Your task to perform on an android device: toggle improve location accuracy Image 0: 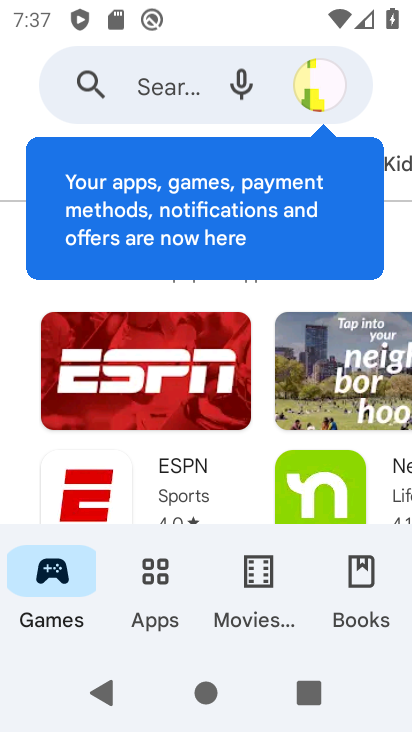
Step 0: press back button
Your task to perform on an android device: toggle improve location accuracy Image 1: 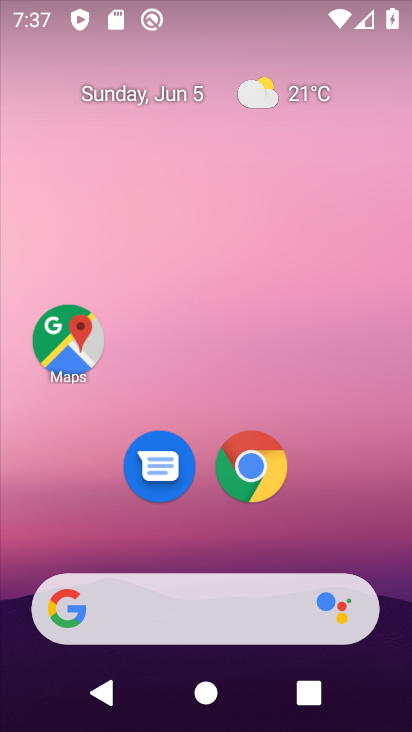
Step 1: drag from (211, 528) to (295, 74)
Your task to perform on an android device: toggle improve location accuracy Image 2: 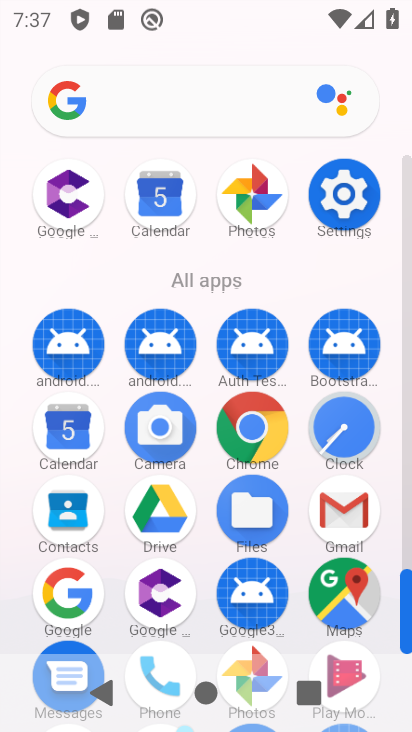
Step 2: click (347, 171)
Your task to perform on an android device: toggle improve location accuracy Image 3: 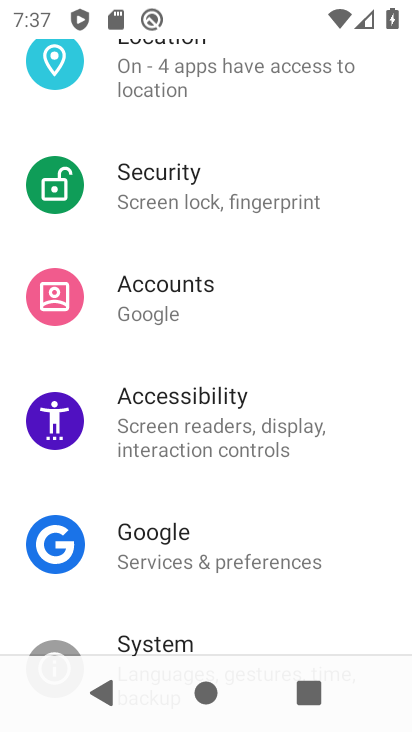
Step 3: click (191, 57)
Your task to perform on an android device: toggle improve location accuracy Image 4: 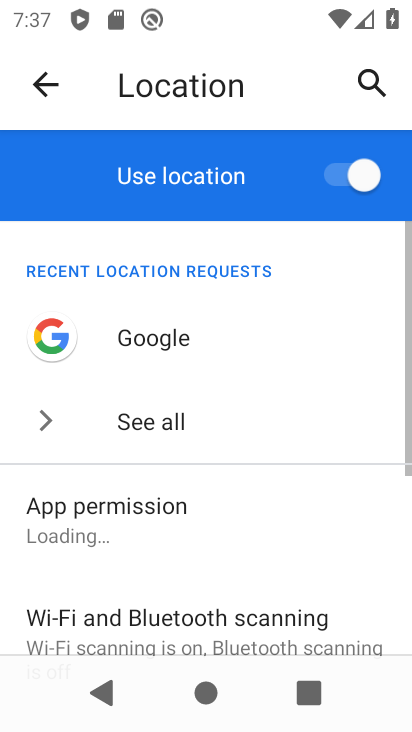
Step 4: drag from (128, 592) to (205, 109)
Your task to perform on an android device: toggle improve location accuracy Image 5: 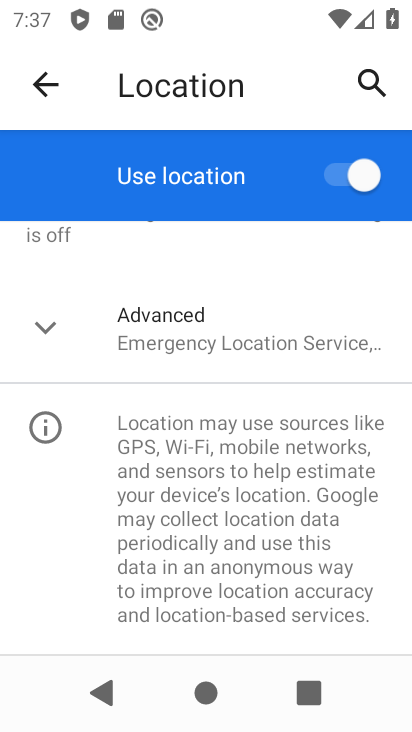
Step 5: drag from (189, 581) to (195, 705)
Your task to perform on an android device: toggle improve location accuracy Image 6: 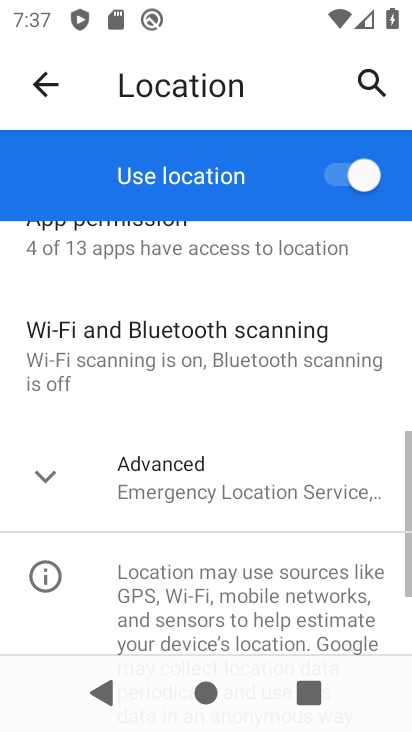
Step 6: click (145, 464)
Your task to perform on an android device: toggle improve location accuracy Image 7: 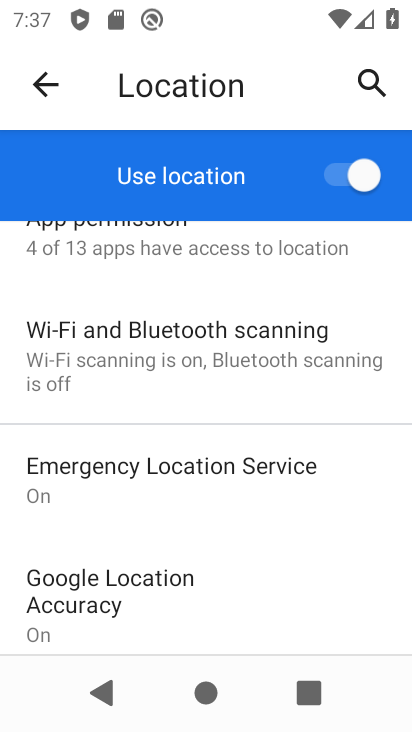
Step 7: click (102, 595)
Your task to perform on an android device: toggle improve location accuracy Image 8: 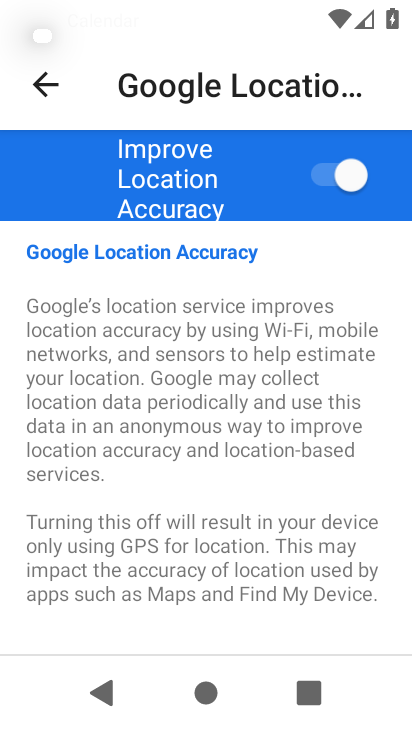
Step 8: click (336, 162)
Your task to perform on an android device: toggle improve location accuracy Image 9: 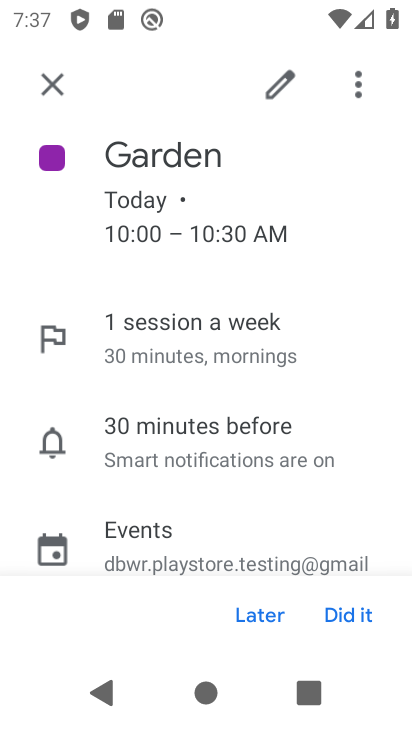
Step 9: click (51, 75)
Your task to perform on an android device: toggle improve location accuracy Image 10: 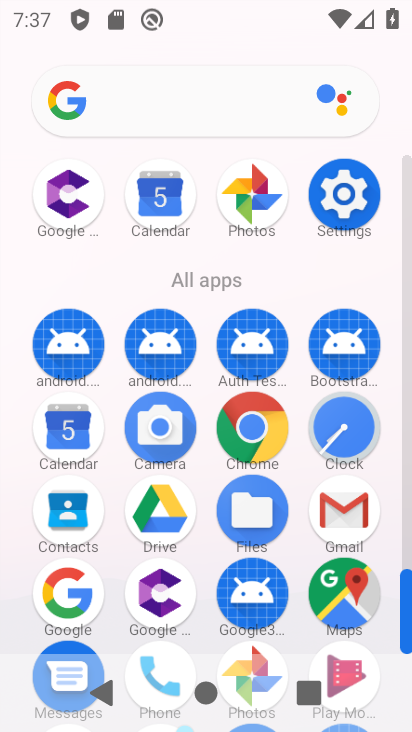
Step 10: click (364, 185)
Your task to perform on an android device: toggle improve location accuracy Image 11: 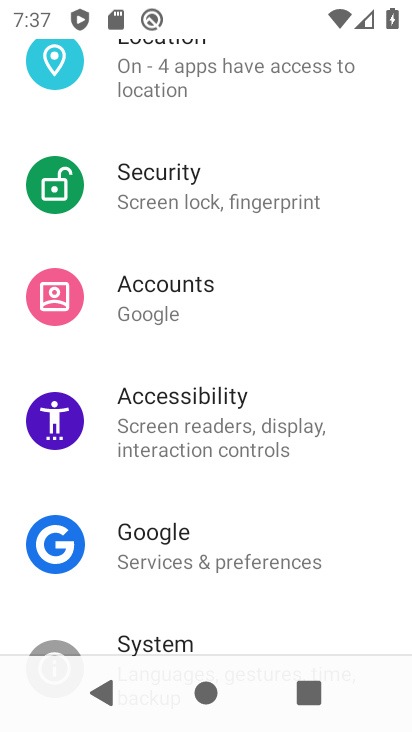
Step 11: click (163, 59)
Your task to perform on an android device: toggle improve location accuracy Image 12: 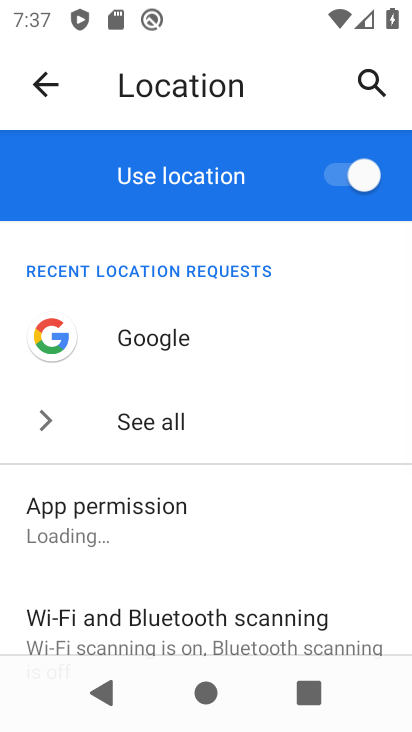
Step 12: drag from (202, 548) to (292, 39)
Your task to perform on an android device: toggle improve location accuracy Image 13: 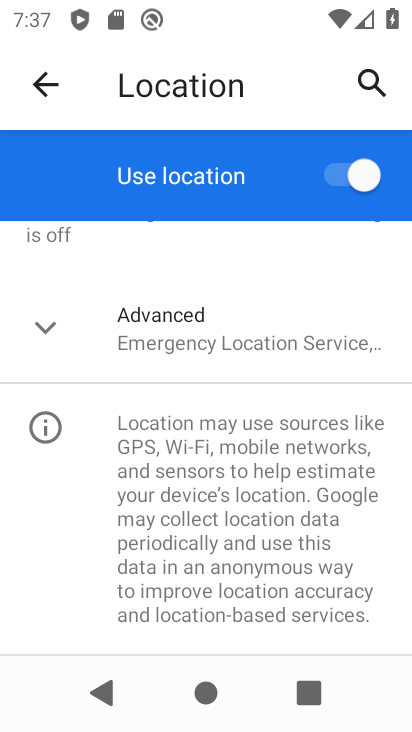
Step 13: click (193, 338)
Your task to perform on an android device: toggle improve location accuracy Image 14: 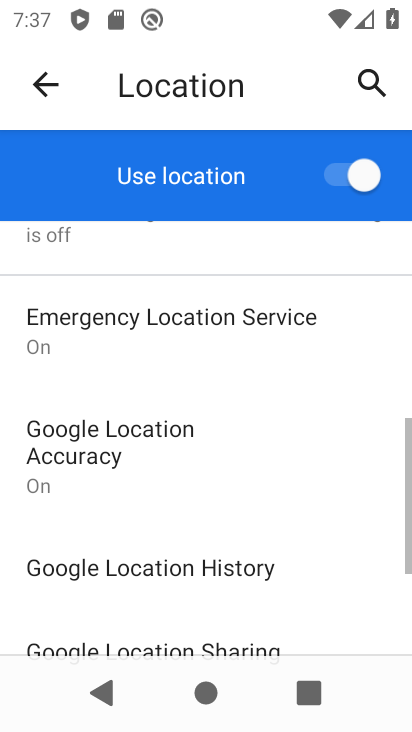
Step 14: click (113, 456)
Your task to perform on an android device: toggle improve location accuracy Image 15: 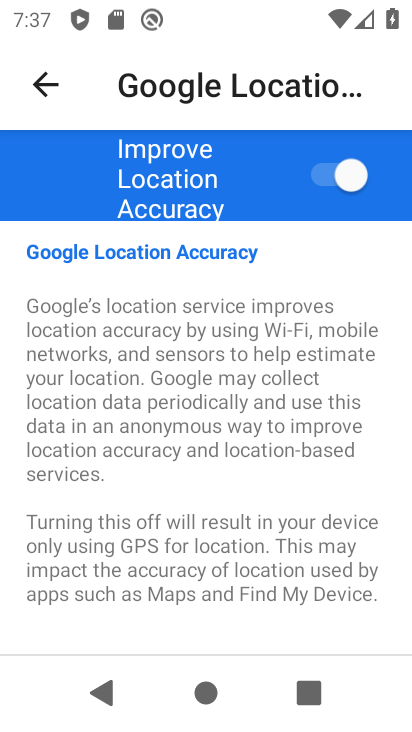
Step 15: click (345, 177)
Your task to perform on an android device: toggle improve location accuracy Image 16: 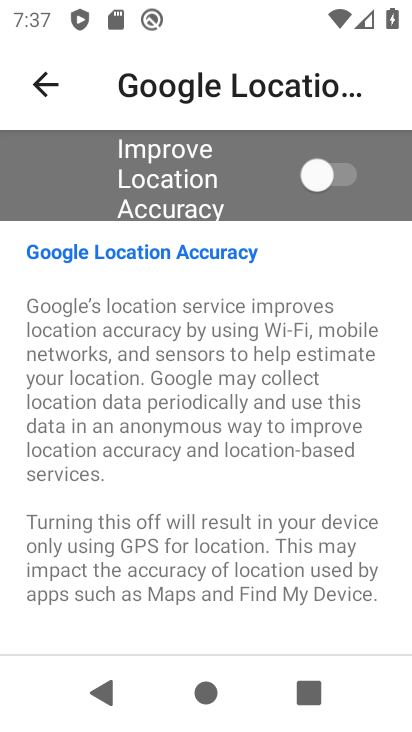
Step 16: task complete